Your task to perform on an android device: refresh tabs in the chrome app Image 0: 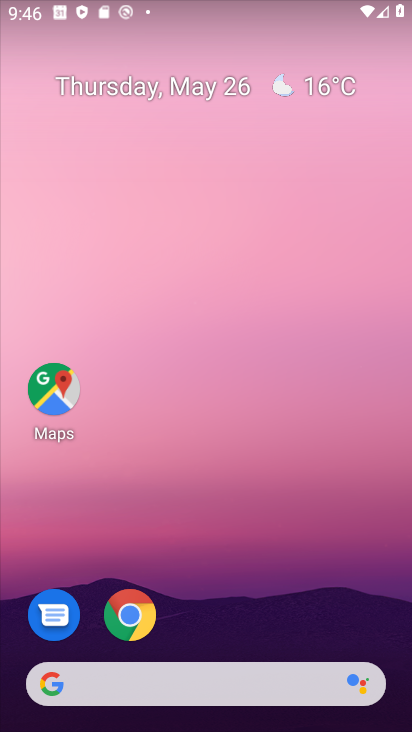
Step 0: drag from (251, 717) to (255, 283)
Your task to perform on an android device: refresh tabs in the chrome app Image 1: 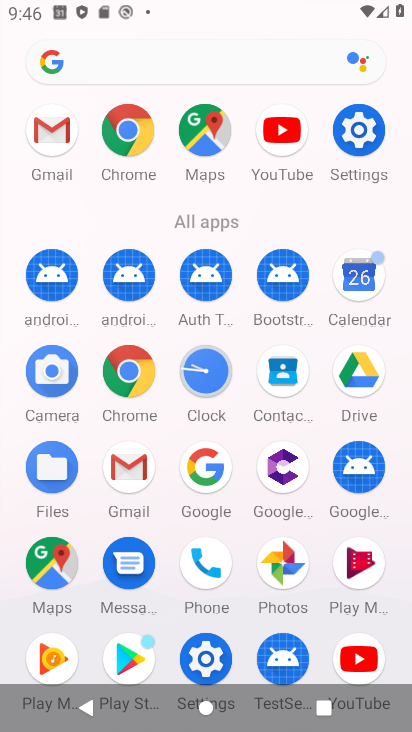
Step 1: click (147, 367)
Your task to perform on an android device: refresh tabs in the chrome app Image 2: 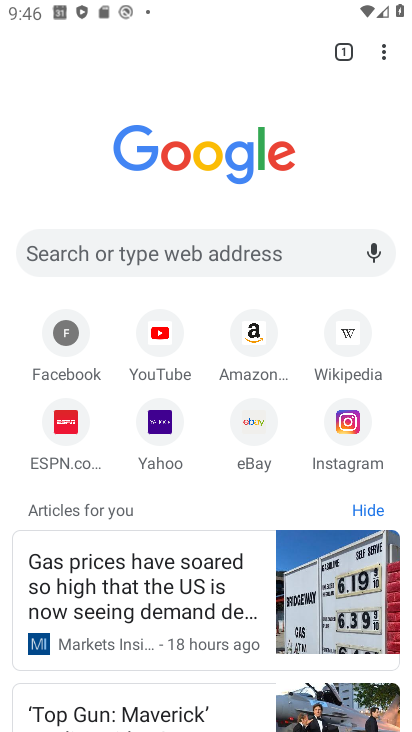
Step 2: click (380, 63)
Your task to perform on an android device: refresh tabs in the chrome app Image 3: 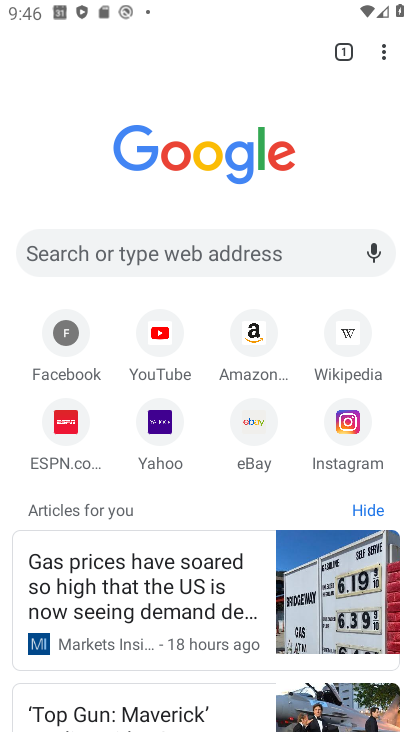
Step 3: click (373, 48)
Your task to perform on an android device: refresh tabs in the chrome app Image 4: 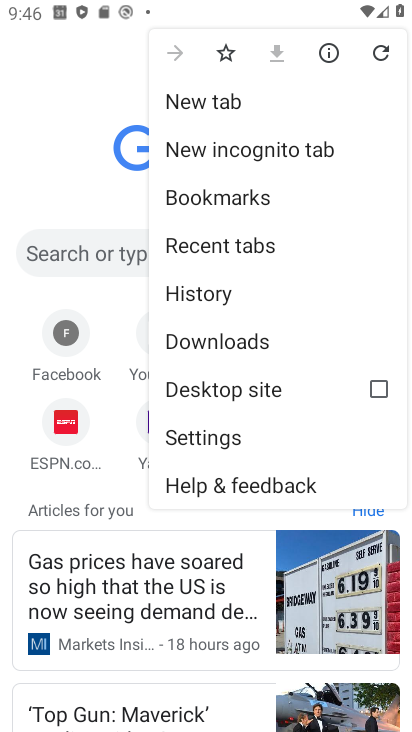
Step 4: click (374, 48)
Your task to perform on an android device: refresh tabs in the chrome app Image 5: 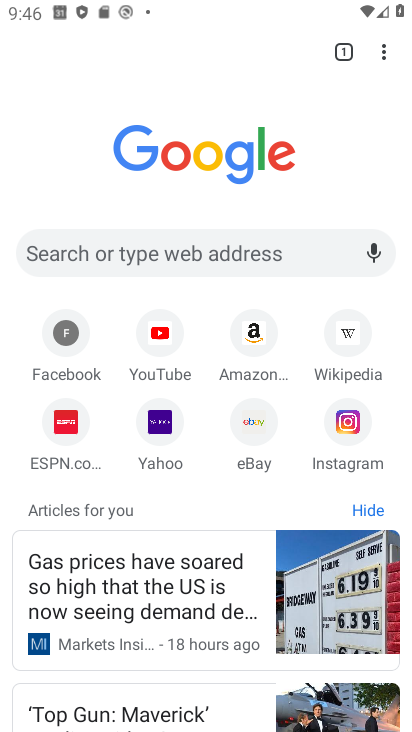
Step 5: task complete